Your task to perform on an android device: check out phone information Image 0: 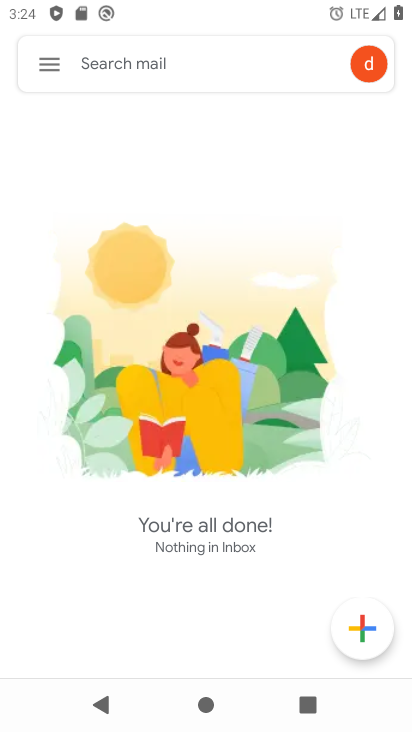
Step 0: press home button
Your task to perform on an android device: check out phone information Image 1: 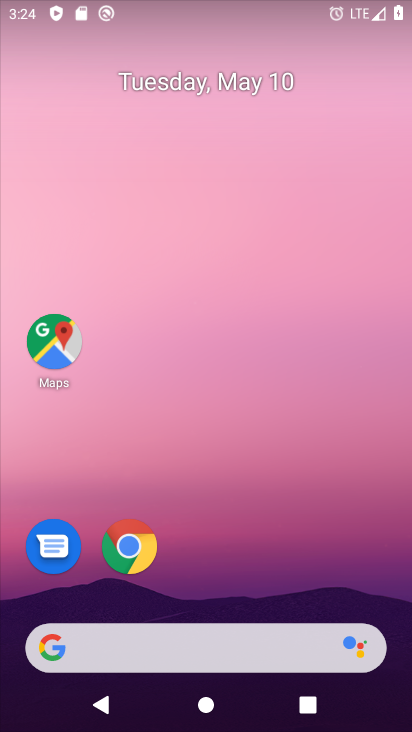
Step 1: drag from (205, 591) to (287, 193)
Your task to perform on an android device: check out phone information Image 2: 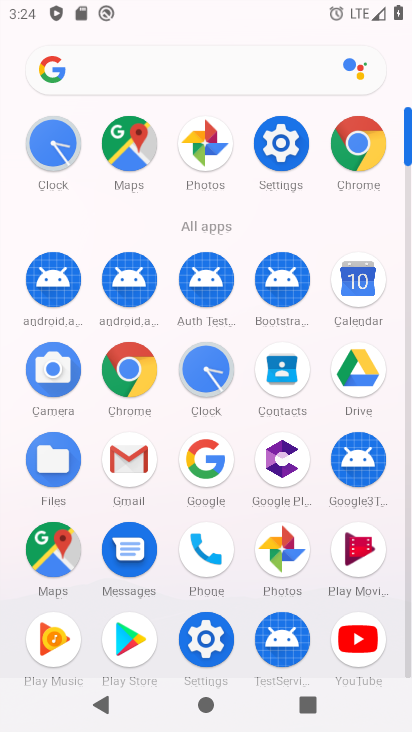
Step 2: click (221, 646)
Your task to perform on an android device: check out phone information Image 3: 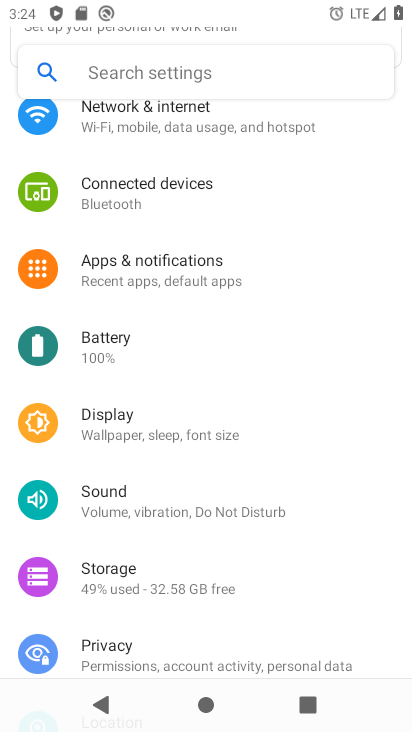
Step 3: drag from (174, 628) to (241, 227)
Your task to perform on an android device: check out phone information Image 4: 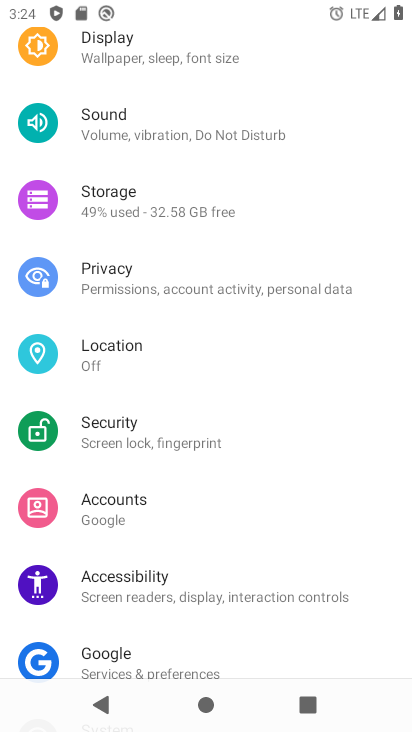
Step 4: drag from (211, 588) to (260, 268)
Your task to perform on an android device: check out phone information Image 5: 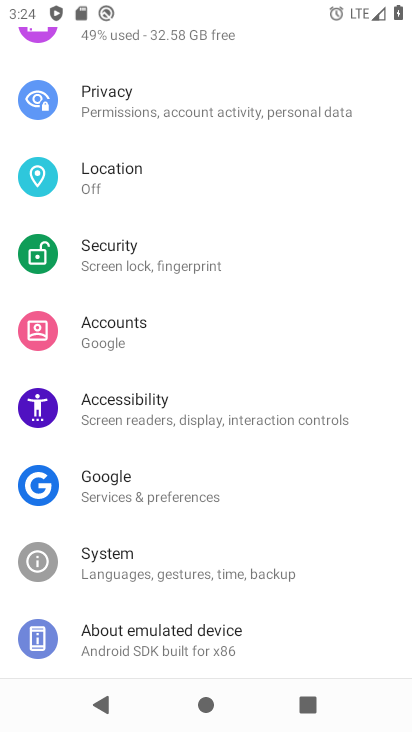
Step 5: click (142, 630)
Your task to perform on an android device: check out phone information Image 6: 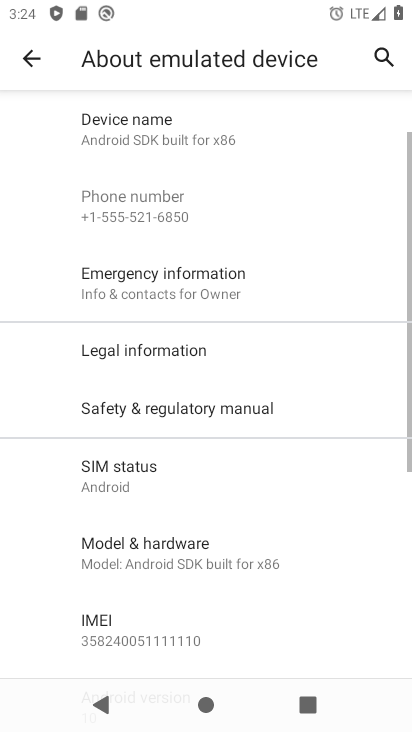
Step 6: task complete